Your task to perform on an android device: check google app version Image 0: 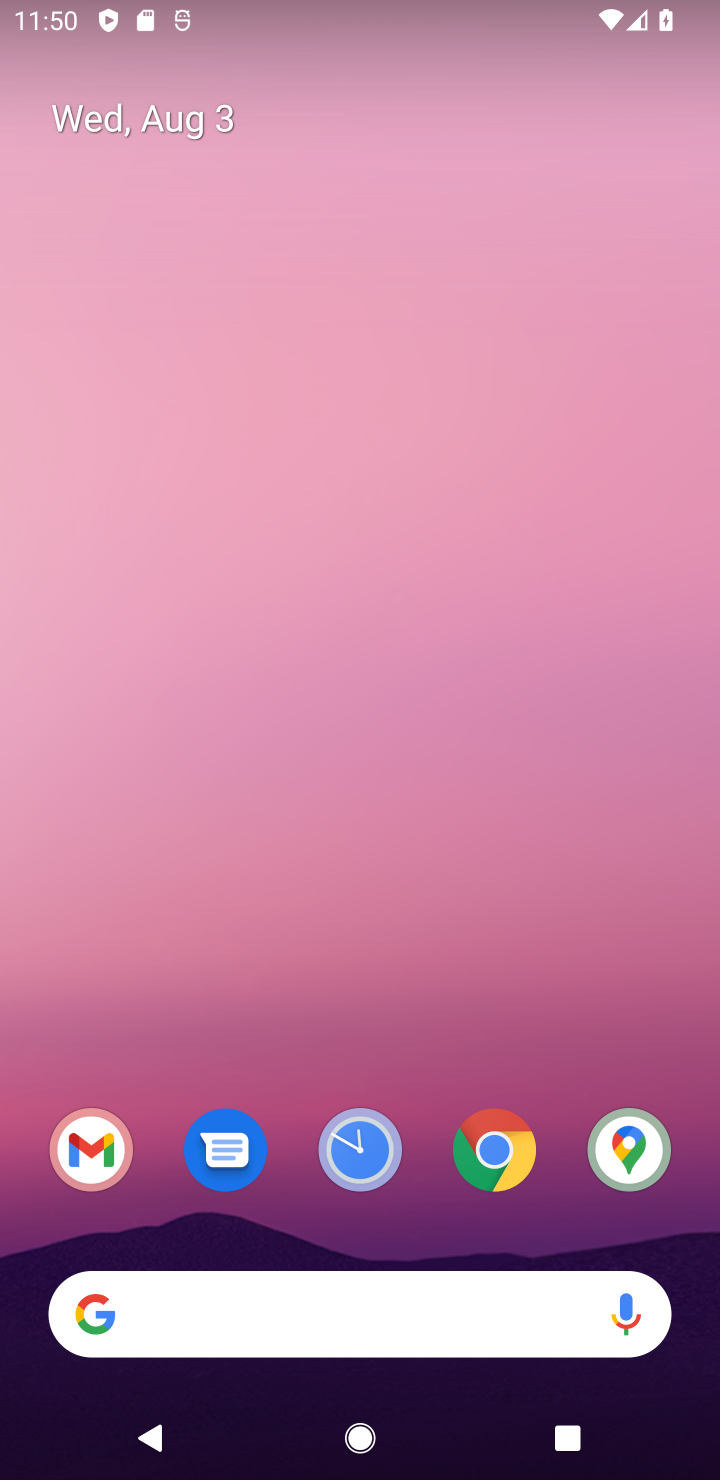
Step 0: press home button
Your task to perform on an android device: check google app version Image 1: 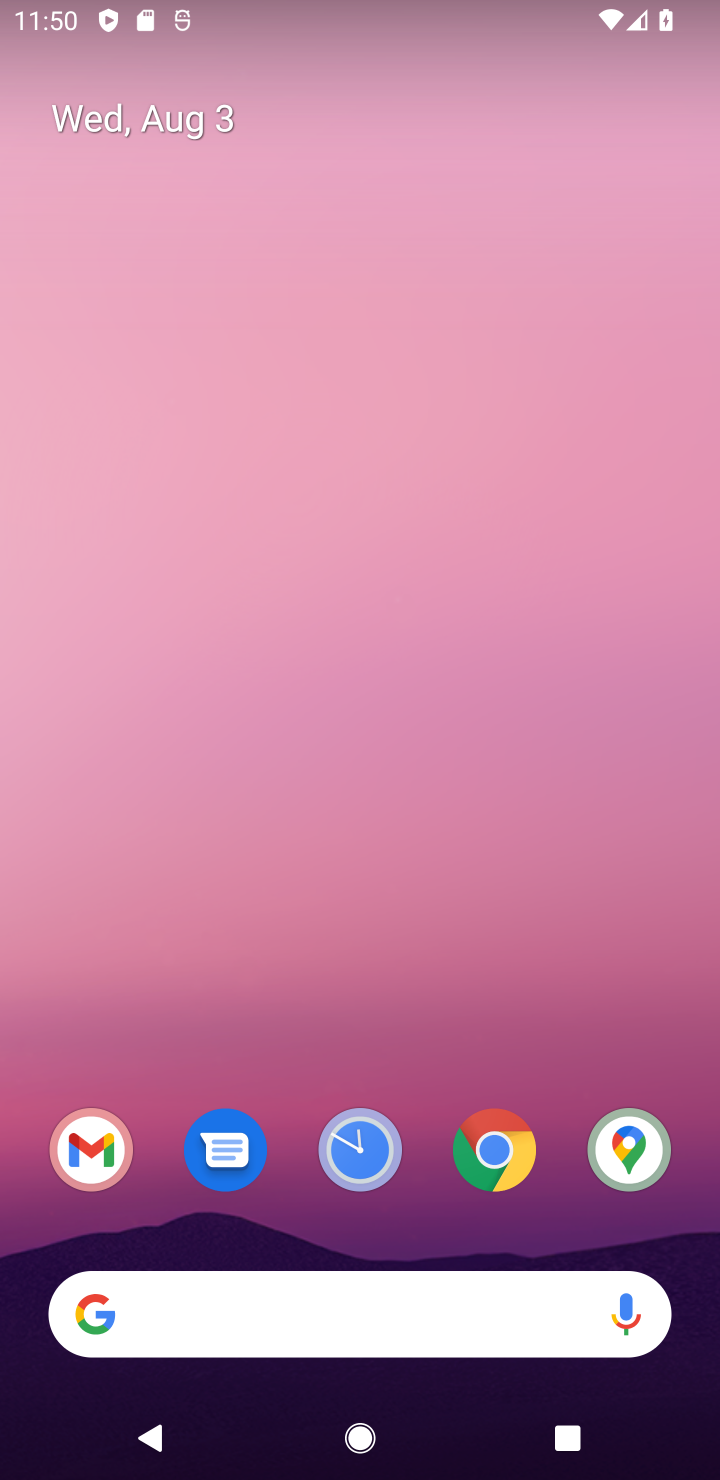
Step 1: drag from (568, 987) to (612, 375)
Your task to perform on an android device: check google app version Image 2: 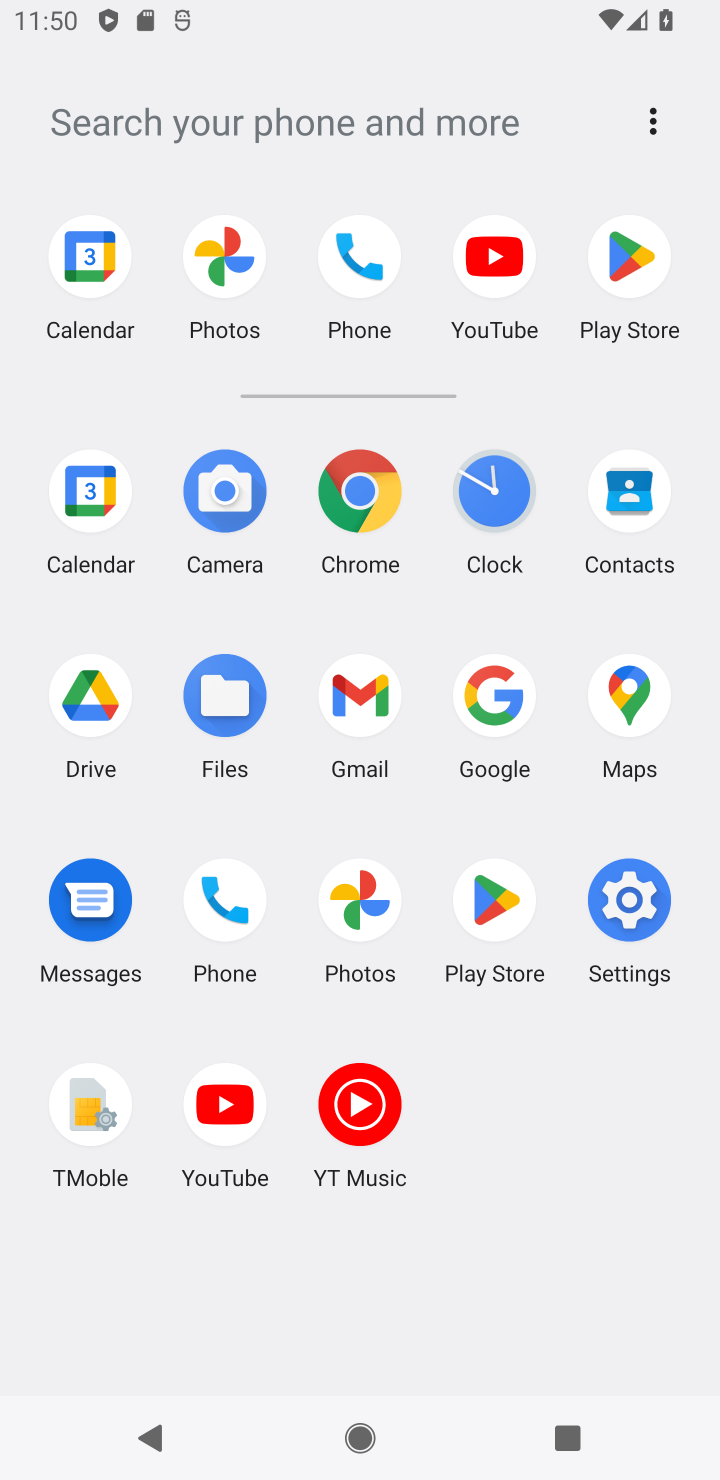
Step 2: click (499, 711)
Your task to perform on an android device: check google app version Image 3: 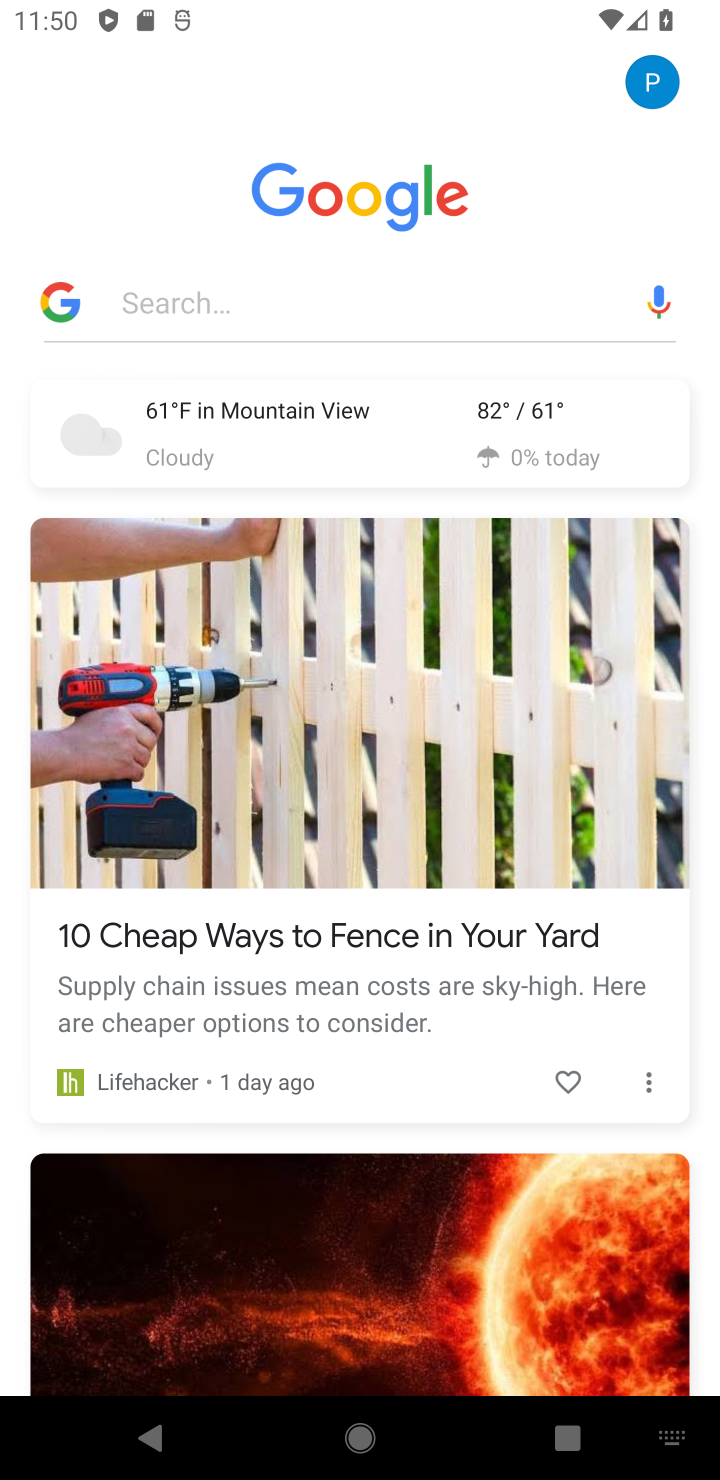
Step 3: press back button
Your task to perform on an android device: check google app version Image 4: 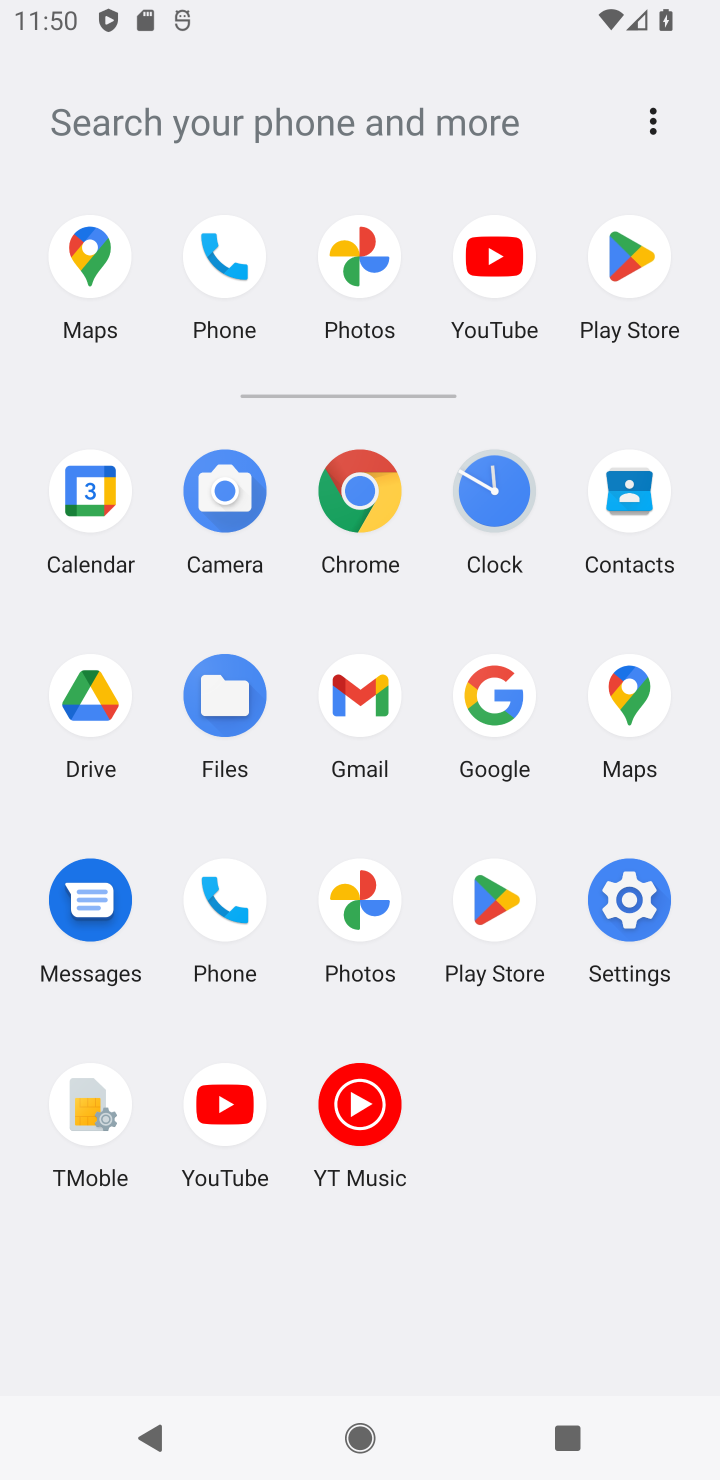
Step 4: click (508, 695)
Your task to perform on an android device: check google app version Image 5: 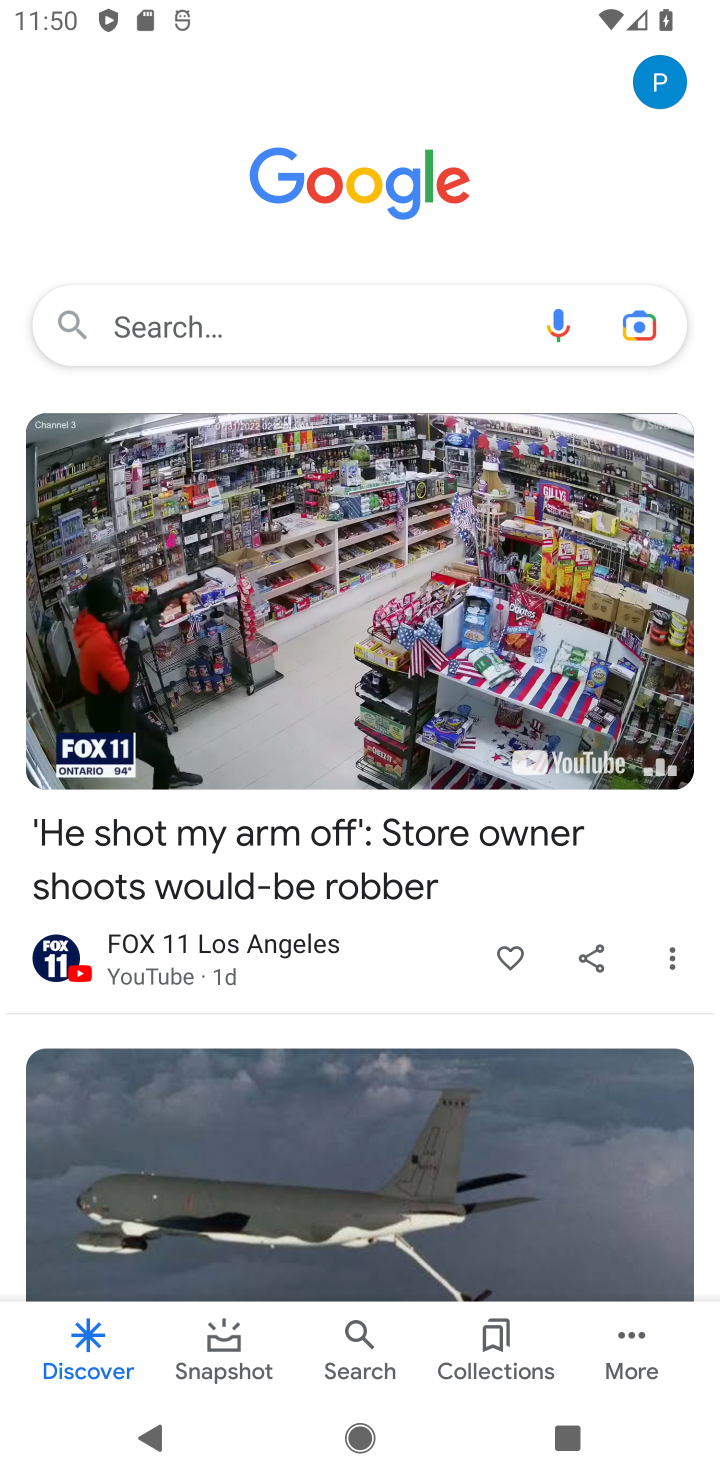
Step 5: click (633, 1345)
Your task to perform on an android device: check google app version Image 6: 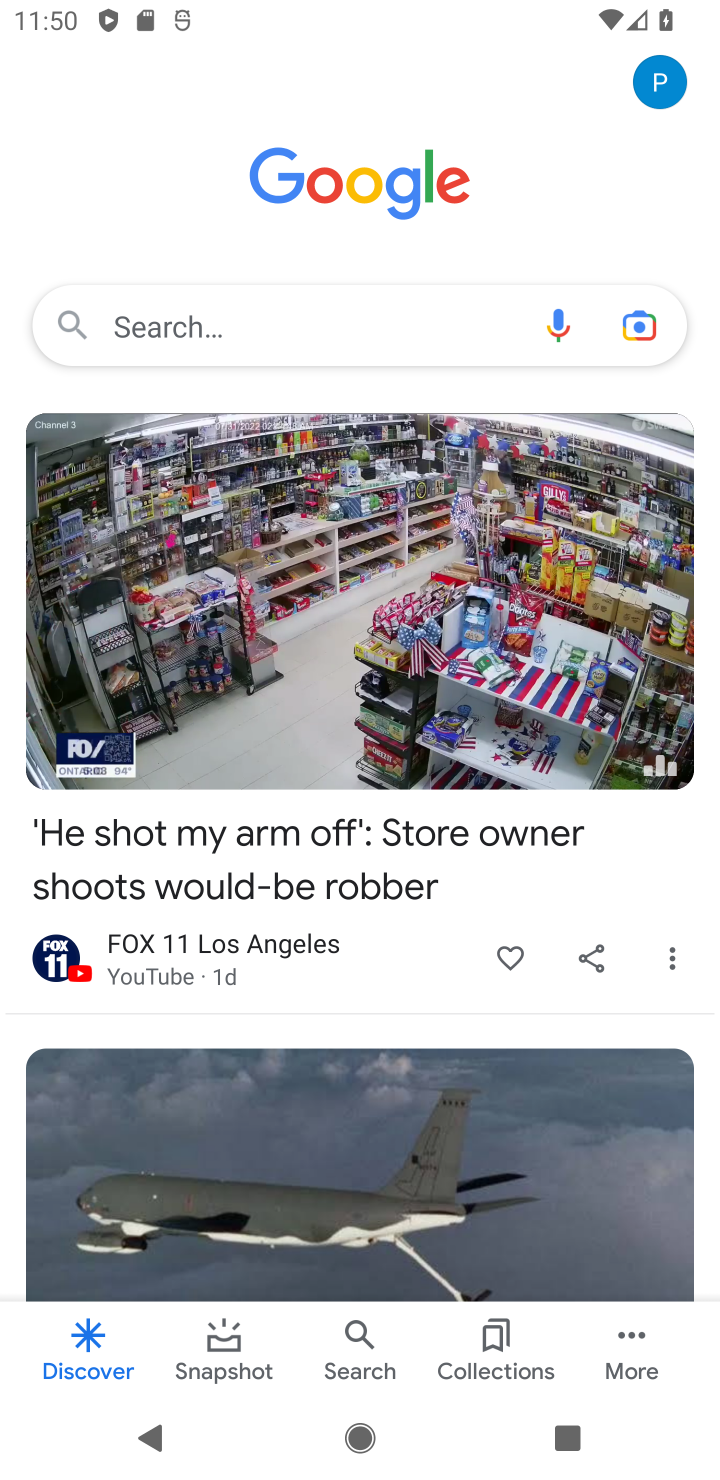
Step 6: click (614, 1353)
Your task to perform on an android device: check google app version Image 7: 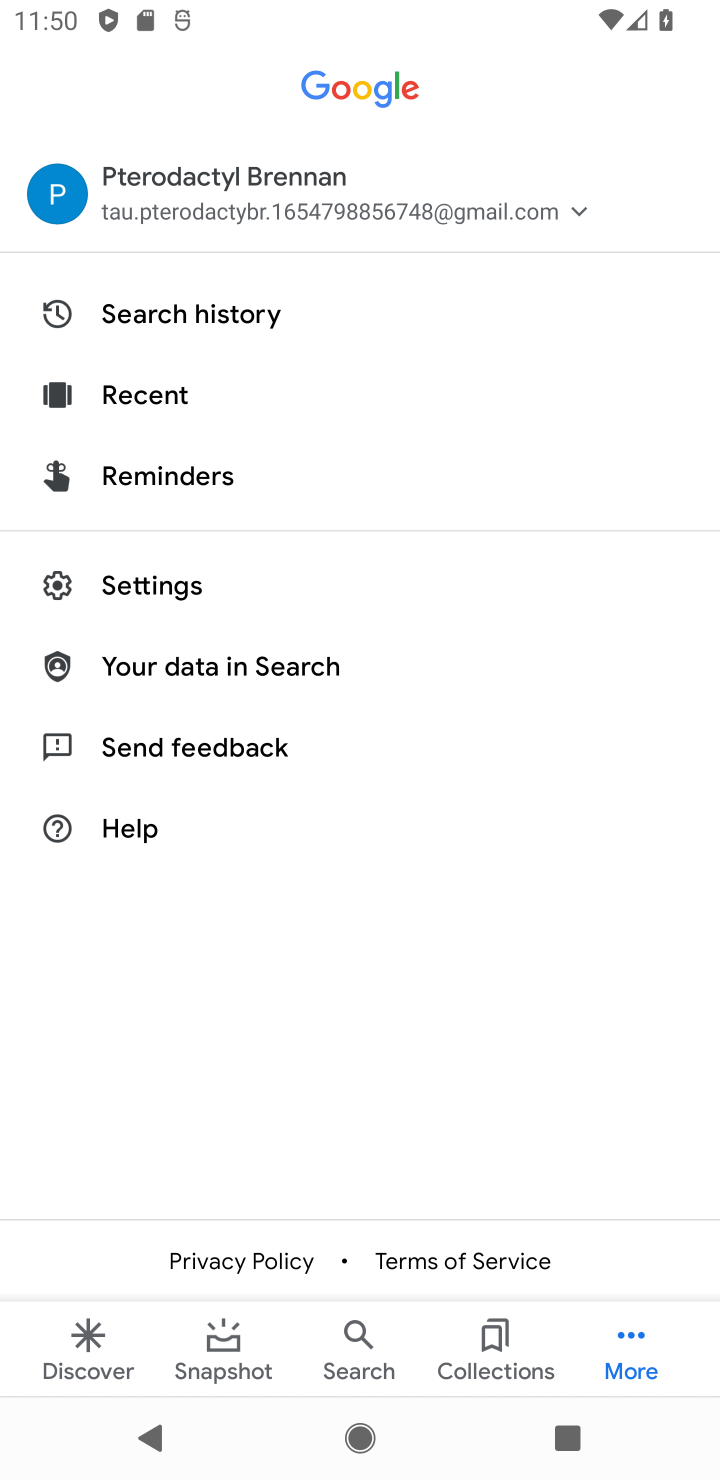
Step 7: click (273, 578)
Your task to perform on an android device: check google app version Image 8: 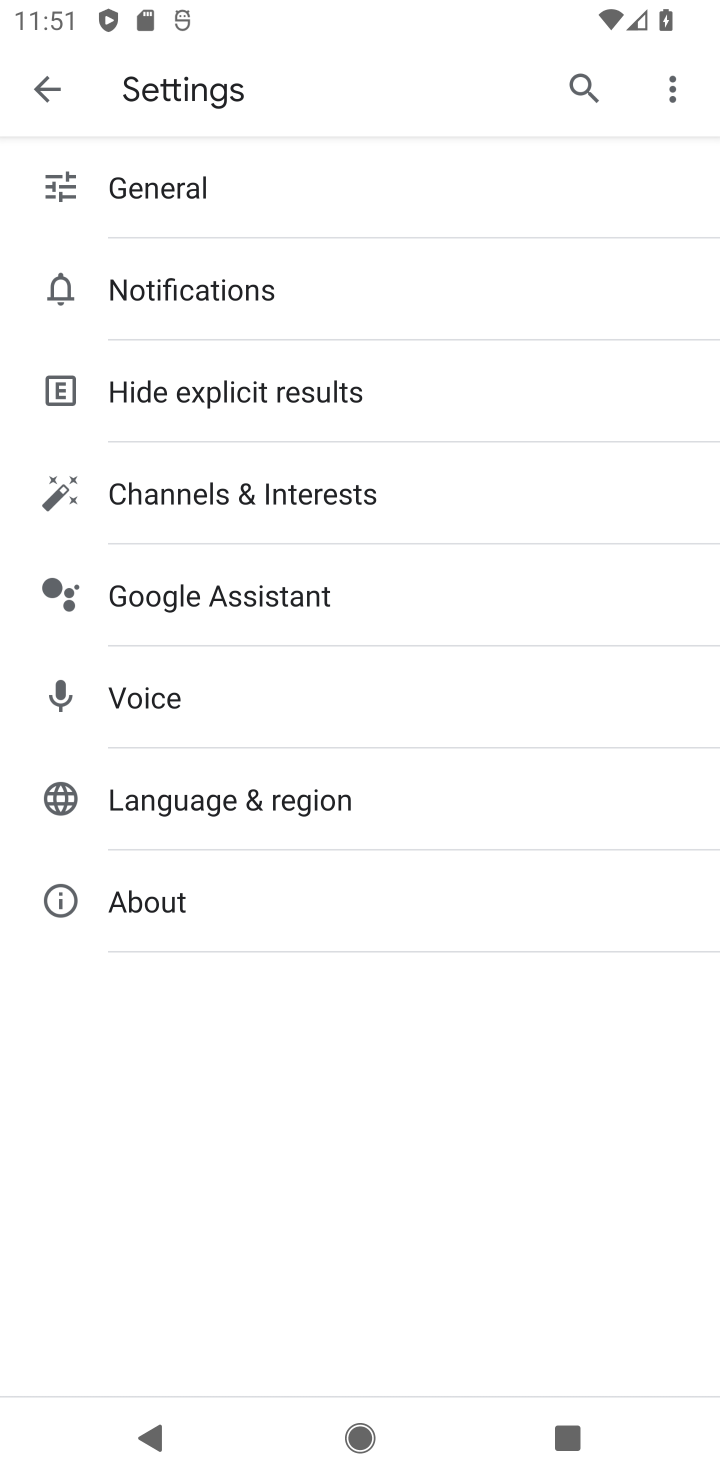
Step 8: click (245, 900)
Your task to perform on an android device: check google app version Image 9: 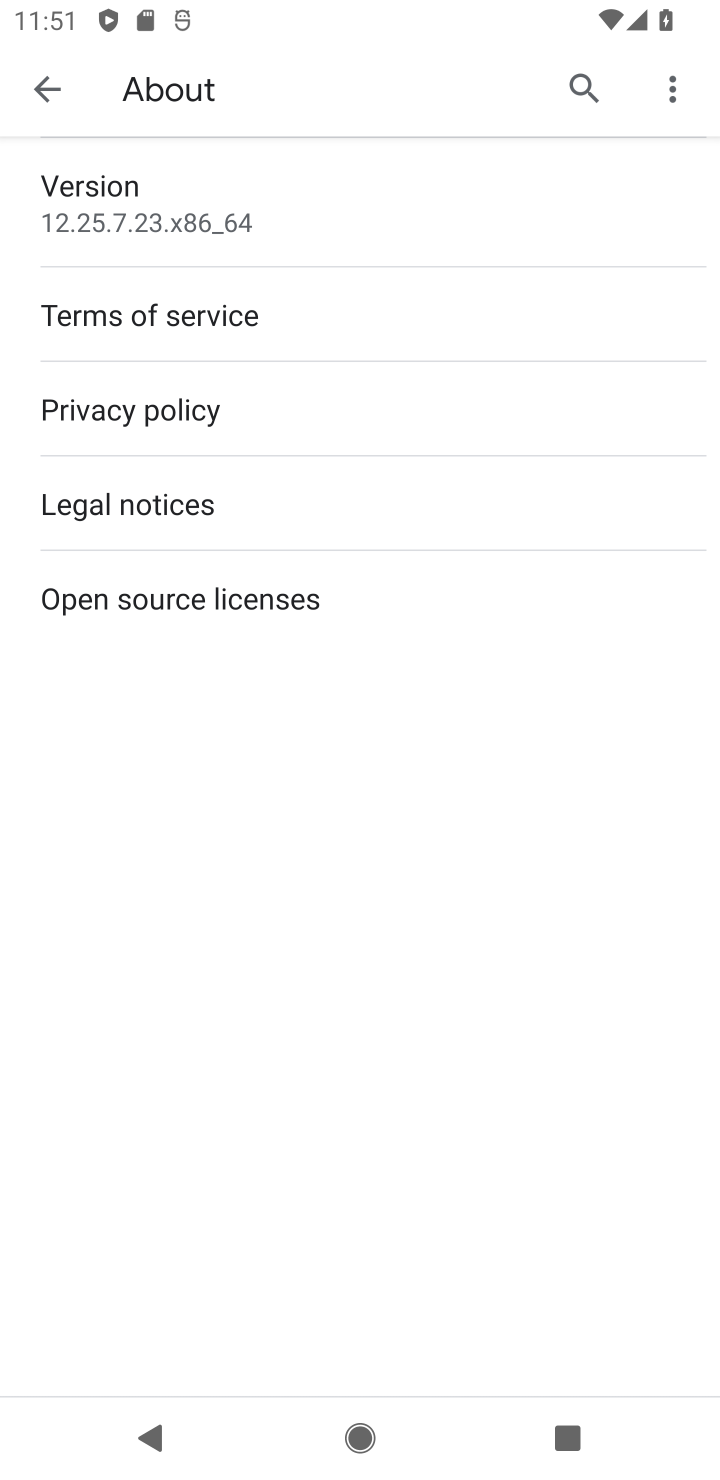
Step 9: task complete